Your task to perform on an android device: add a contact Image 0: 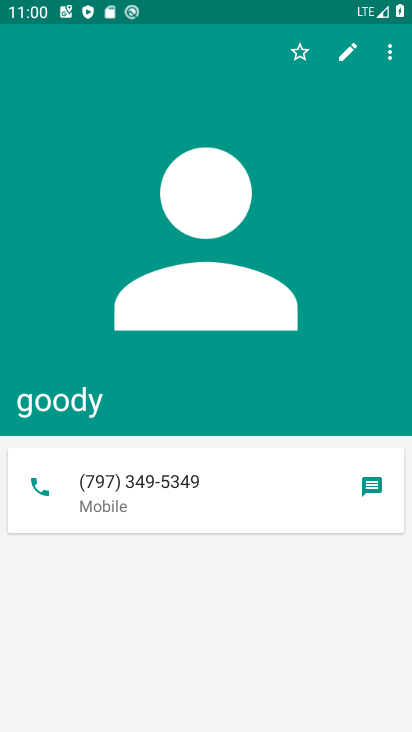
Step 0: press back button
Your task to perform on an android device: add a contact Image 1: 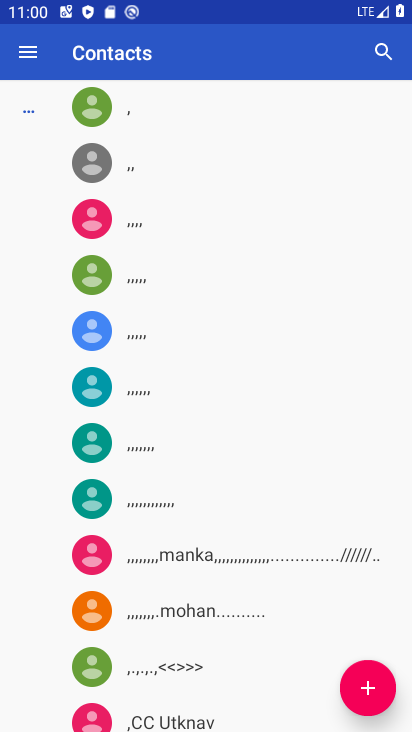
Step 1: click (376, 692)
Your task to perform on an android device: add a contact Image 2: 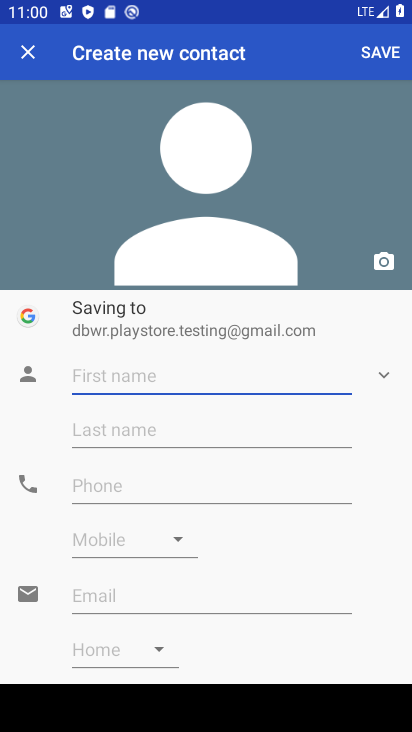
Step 2: type "vchfh"
Your task to perform on an android device: add a contact Image 3: 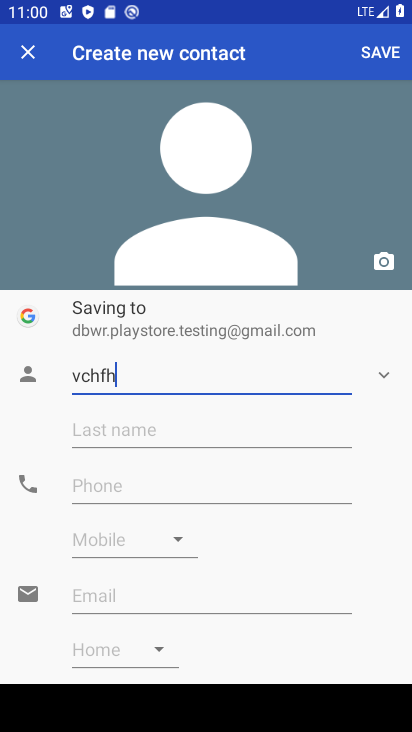
Step 3: click (344, 493)
Your task to perform on an android device: add a contact Image 4: 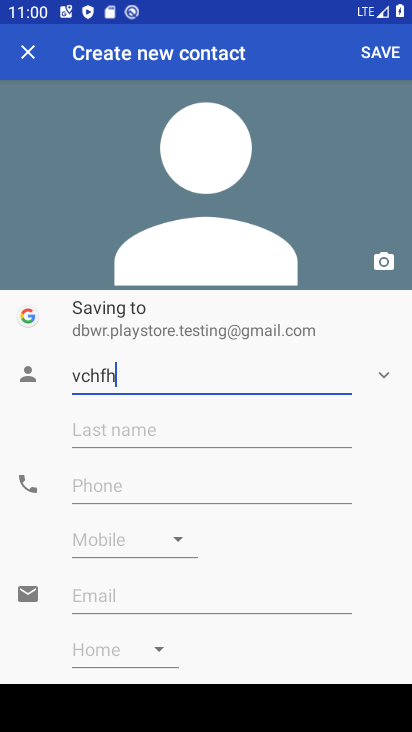
Step 4: click (343, 492)
Your task to perform on an android device: add a contact Image 5: 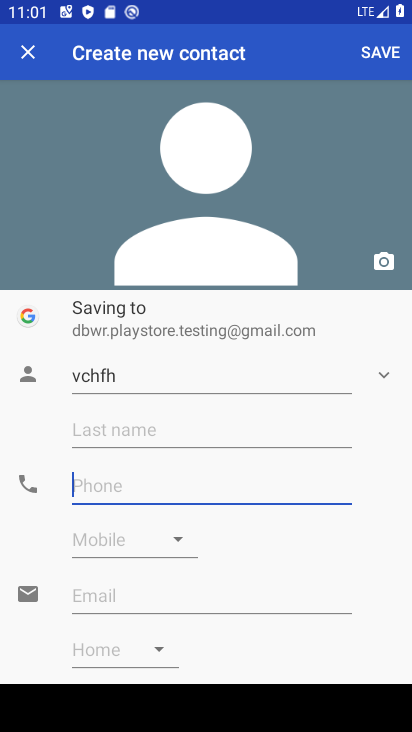
Step 5: type "8777457"
Your task to perform on an android device: add a contact Image 6: 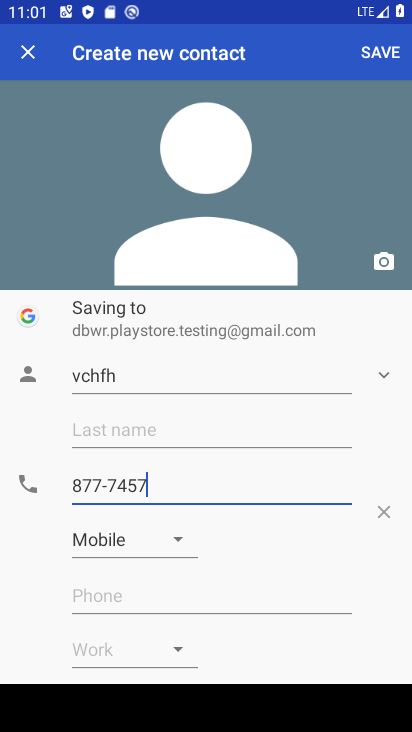
Step 6: click (373, 65)
Your task to perform on an android device: add a contact Image 7: 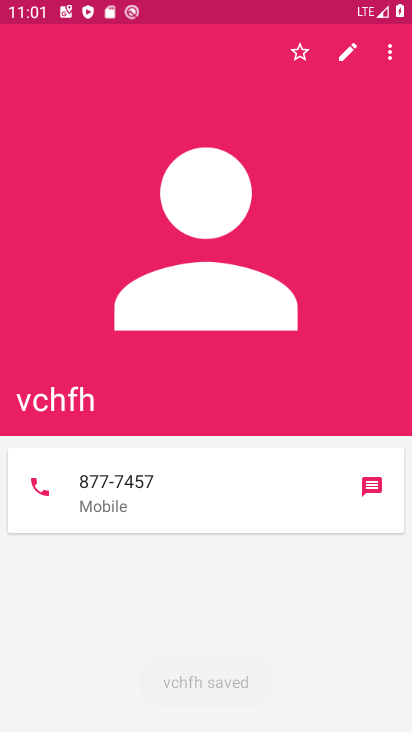
Step 7: task complete